Your task to perform on an android device: toggle airplane mode Image 0: 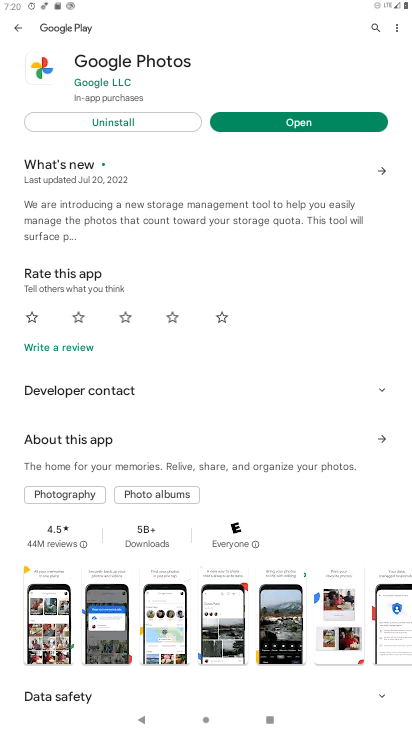
Step 0: press home button
Your task to perform on an android device: toggle airplane mode Image 1: 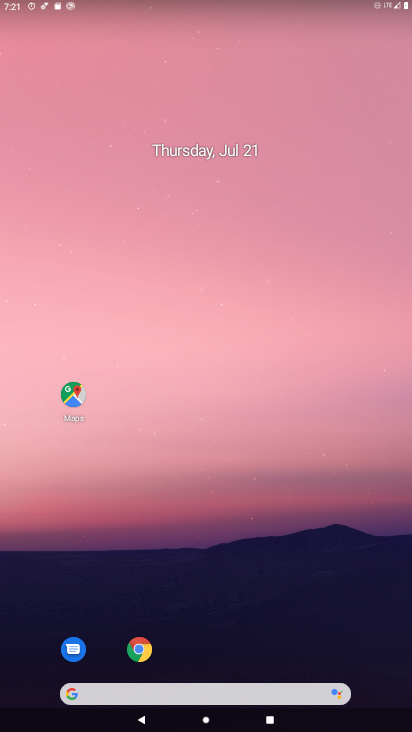
Step 1: click (261, 640)
Your task to perform on an android device: toggle airplane mode Image 2: 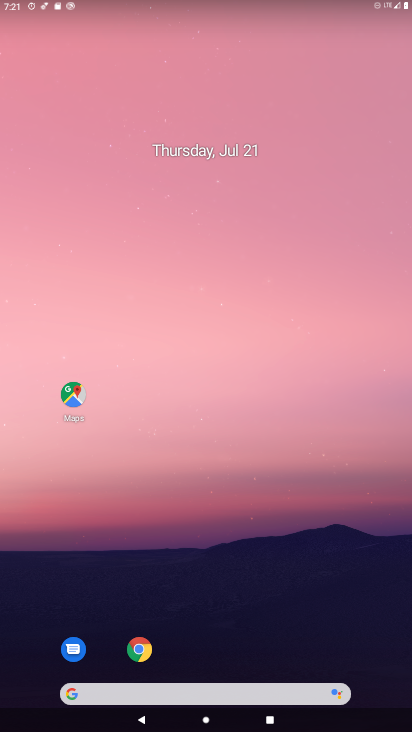
Step 2: drag from (190, 5) to (310, 582)
Your task to perform on an android device: toggle airplane mode Image 3: 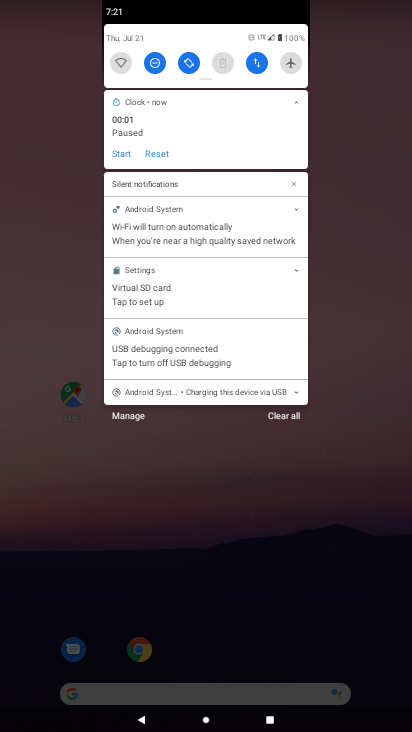
Step 3: click (282, 60)
Your task to perform on an android device: toggle airplane mode Image 4: 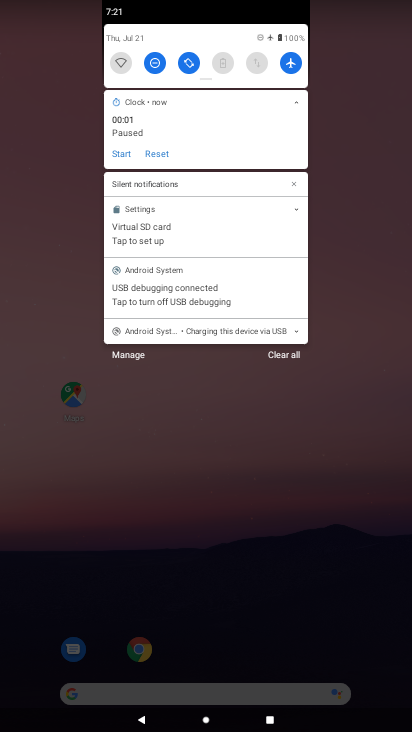
Step 4: task complete